Your task to perform on an android device: Do I have any events this weekend? Image 0: 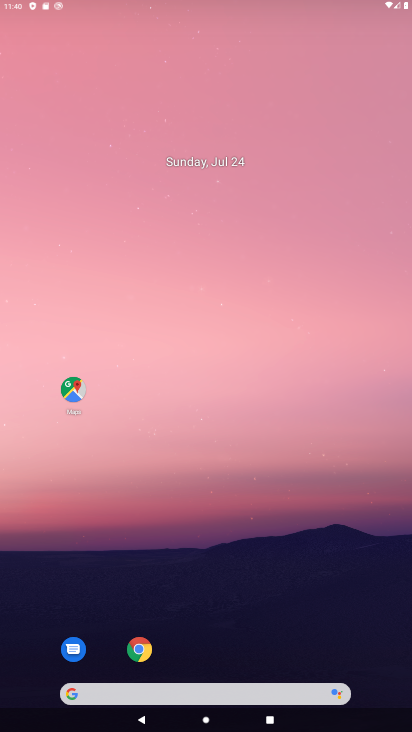
Step 0: drag from (239, 699) to (237, 410)
Your task to perform on an android device: Do I have any events this weekend? Image 1: 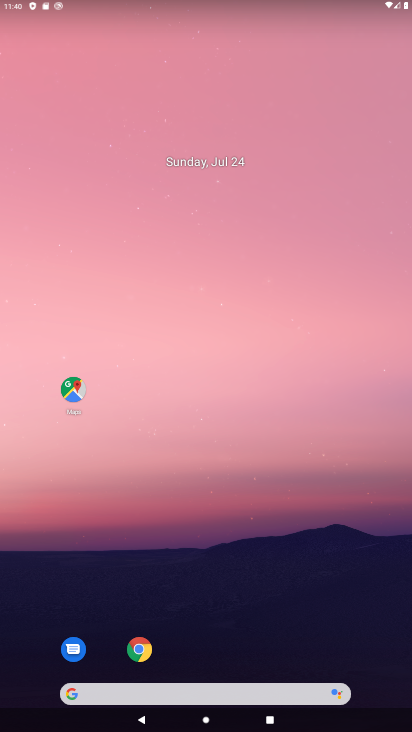
Step 1: drag from (249, 480) to (266, 167)
Your task to perform on an android device: Do I have any events this weekend? Image 2: 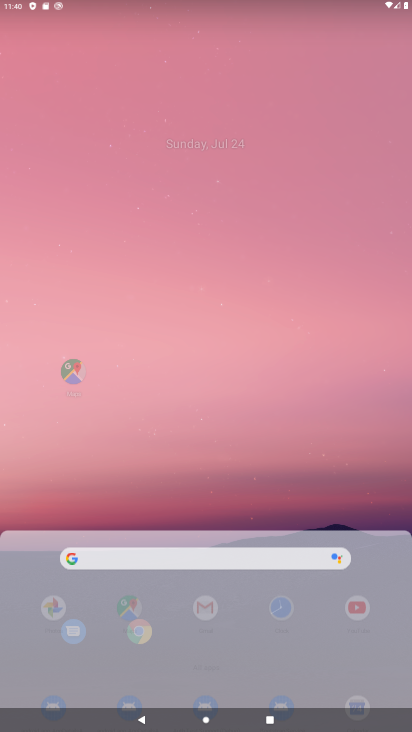
Step 2: drag from (154, 664) to (106, 253)
Your task to perform on an android device: Do I have any events this weekend? Image 3: 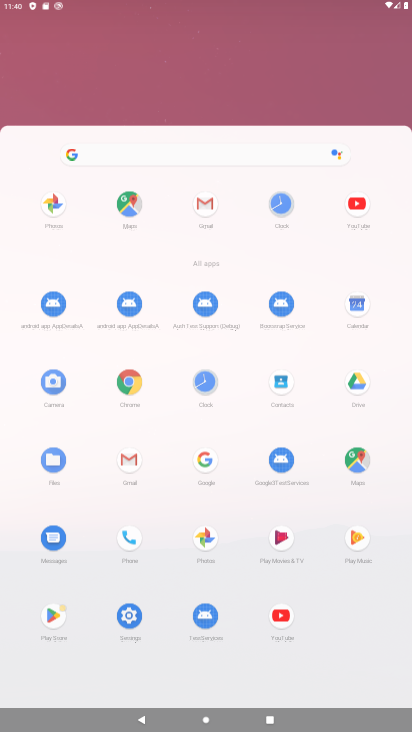
Step 3: drag from (225, 550) to (302, 183)
Your task to perform on an android device: Do I have any events this weekend? Image 4: 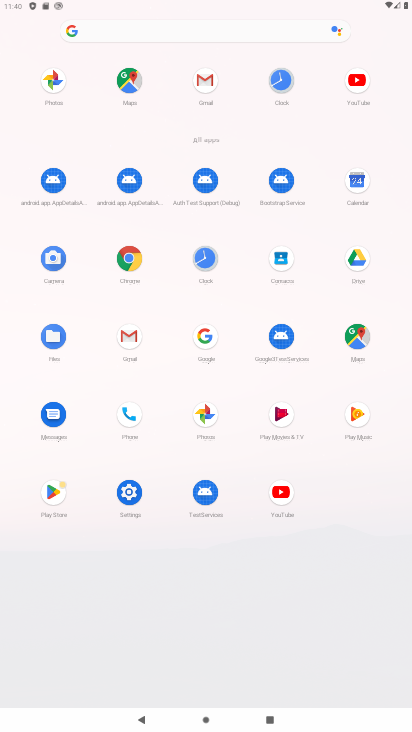
Step 4: click (351, 173)
Your task to perform on an android device: Do I have any events this weekend? Image 5: 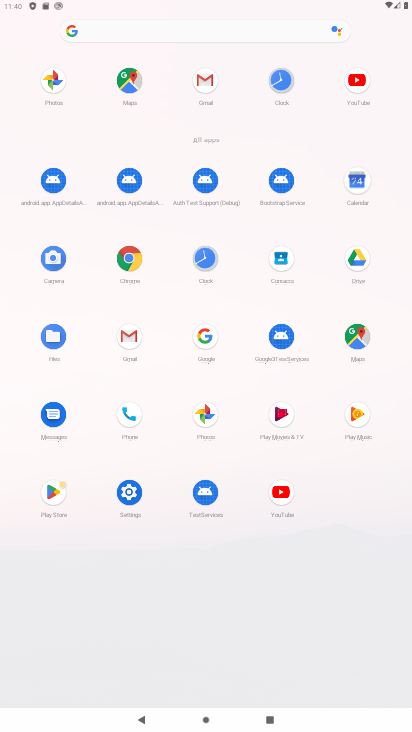
Step 5: click (354, 182)
Your task to perform on an android device: Do I have any events this weekend? Image 6: 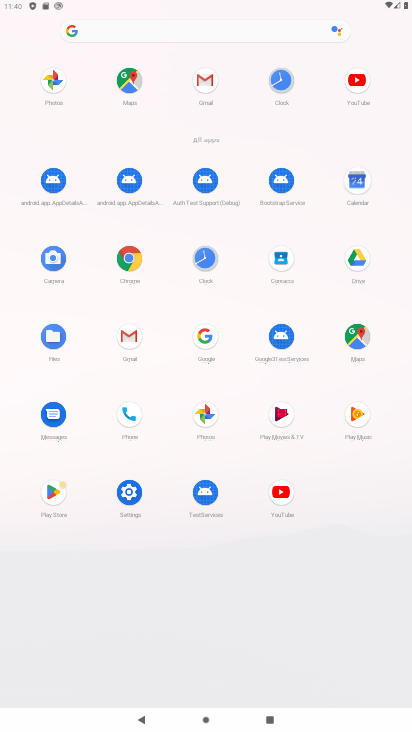
Step 6: click (357, 185)
Your task to perform on an android device: Do I have any events this weekend? Image 7: 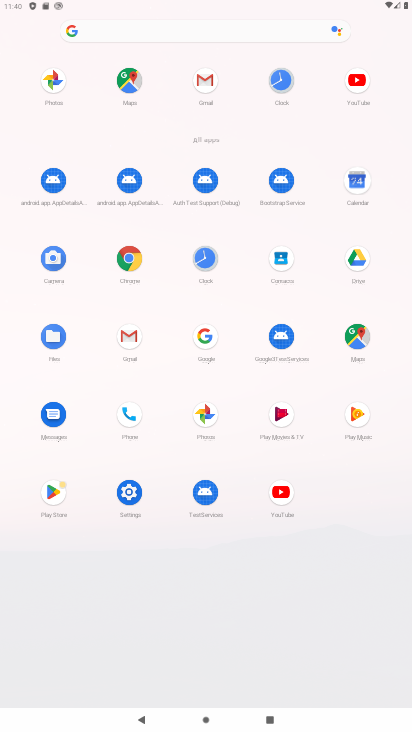
Step 7: click (358, 185)
Your task to perform on an android device: Do I have any events this weekend? Image 8: 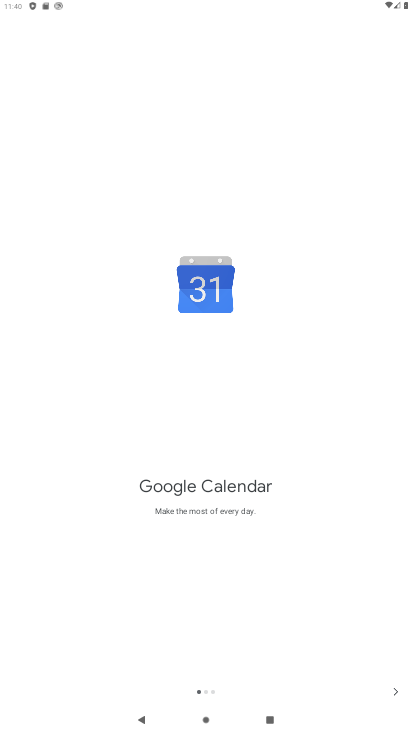
Step 8: click (407, 693)
Your task to perform on an android device: Do I have any events this weekend? Image 9: 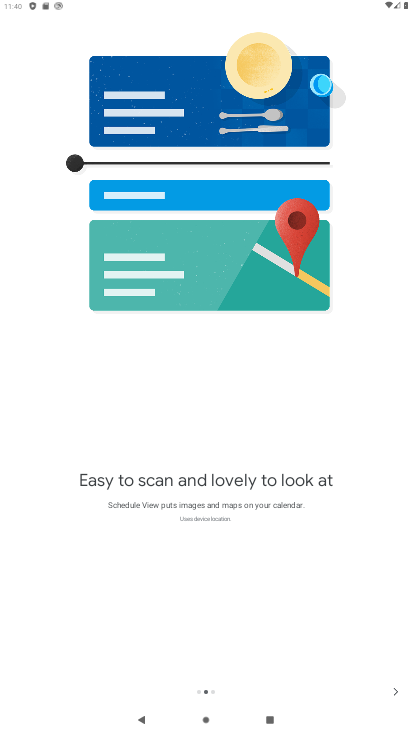
Step 9: click (398, 699)
Your task to perform on an android device: Do I have any events this weekend? Image 10: 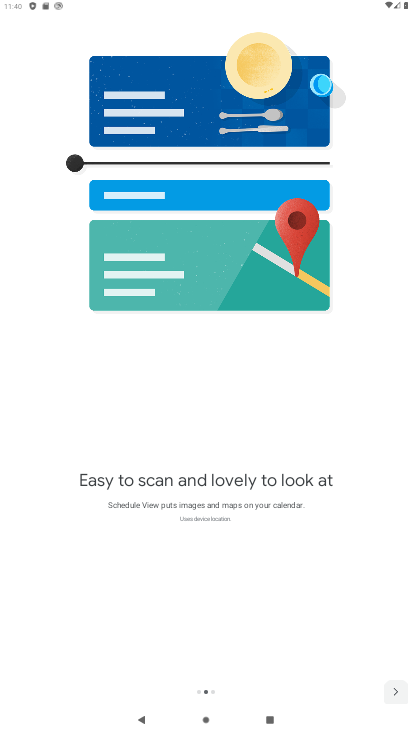
Step 10: click (398, 699)
Your task to perform on an android device: Do I have any events this weekend? Image 11: 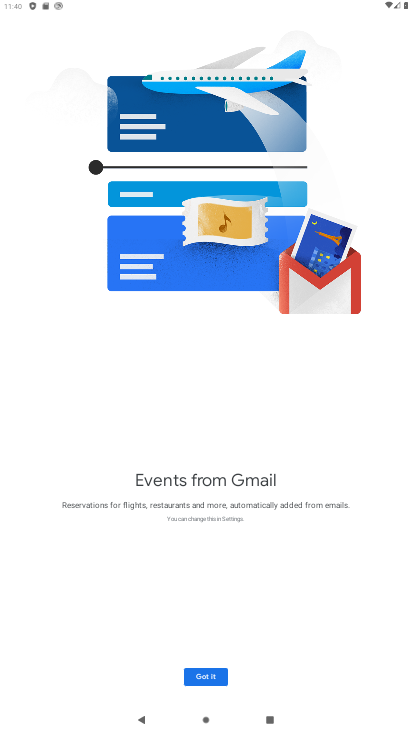
Step 11: click (203, 660)
Your task to perform on an android device: Do I have any events this weekend? Image 12: 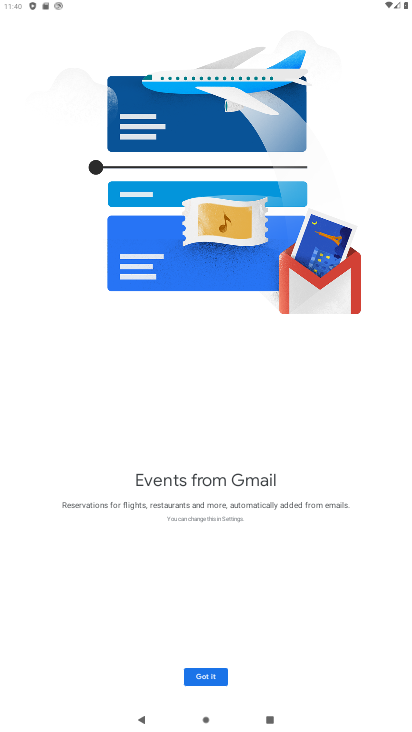
Step 12: click (211, 675)
Your task to perform on an android device: Do I have any events this weekend? Image 13: 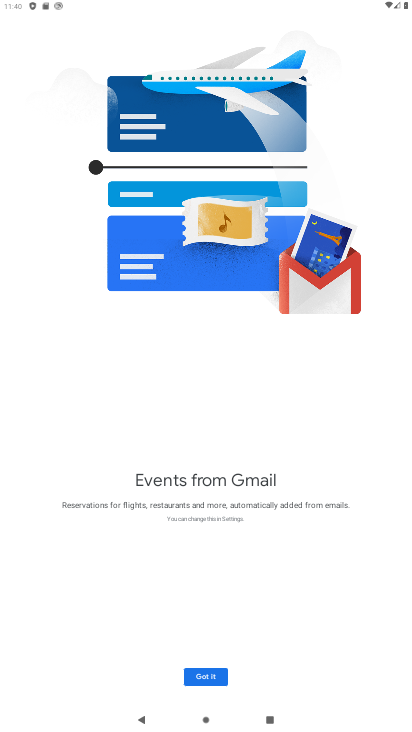
Step 13: click (217, 670)
Your task to perform on an android device: Do I have any events this weekend? Image 14: 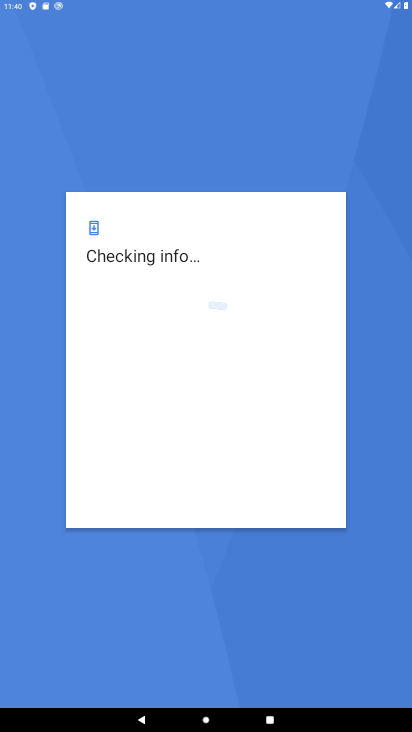
Step 14: click (60, 101)
Your task to perform on an android device: Do I have any events this weekend? Image 15: 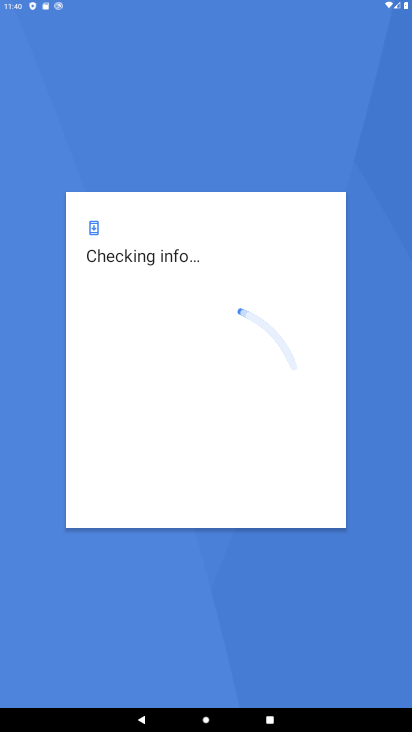
Step 15: click (81, 118)
Your task to perform on an android device: Do I have any events this weekend? Image 16: 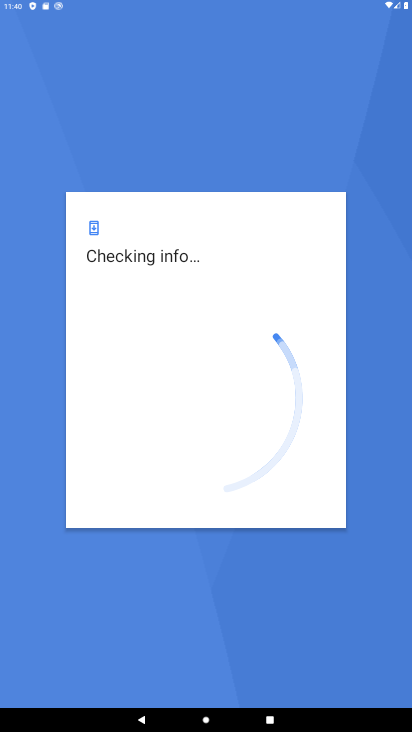
Step 16: click (84, 117)
Your task to perform on an android device: Do I have any events this weekend? Image 17: 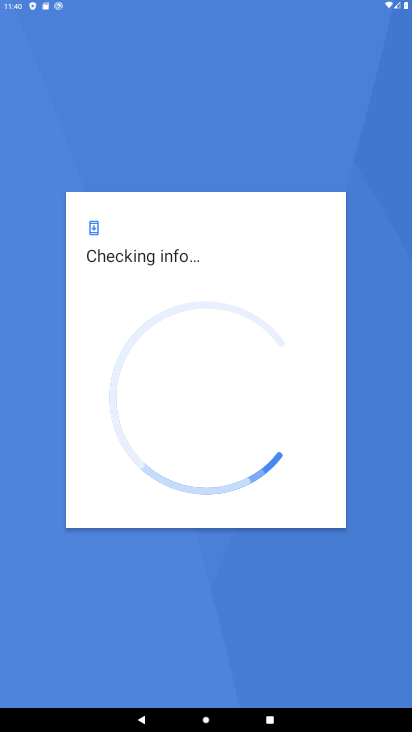
Step 17: click (84, 117)
Your task to perform on an android device: Do I have any events this weekend? Image 18: 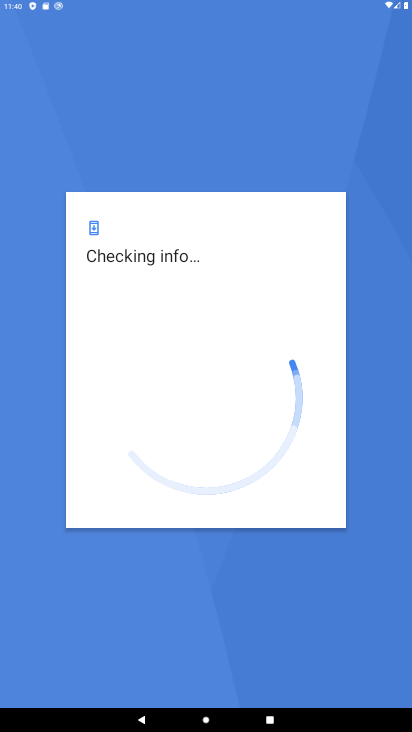
Step 18: task complete